Your task to perform on an android device: turn on translation in the chrome app Image 0: 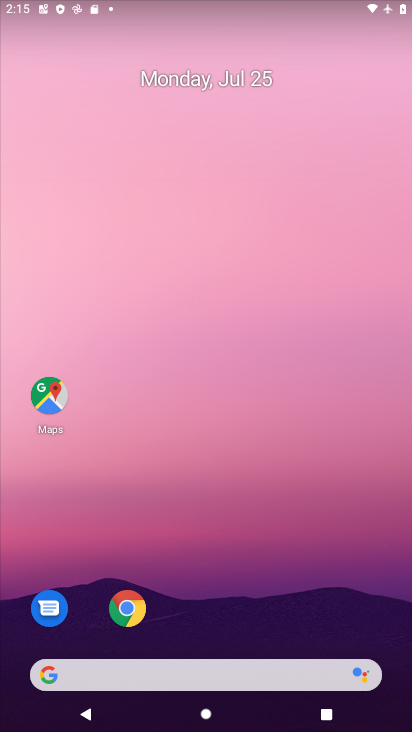
Step 0: drag from (248, 638) to (262, 145)
Your task to perform on an android device: turn on translation in the chrome app Image 1: 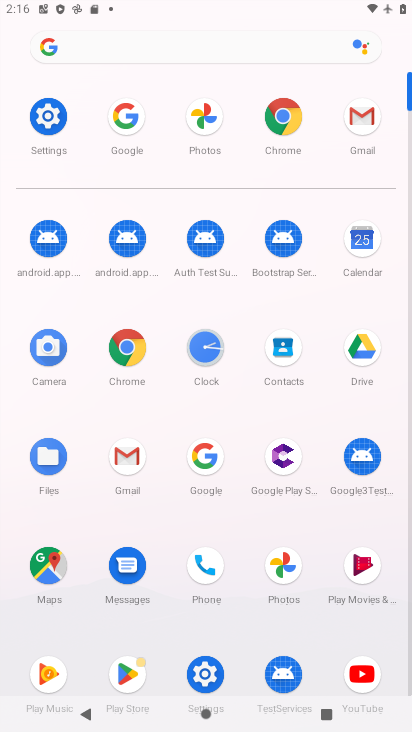
Step 1: click (288, 132)
Your task to perform on an android device: turn on translation in the chrome app Image 2: 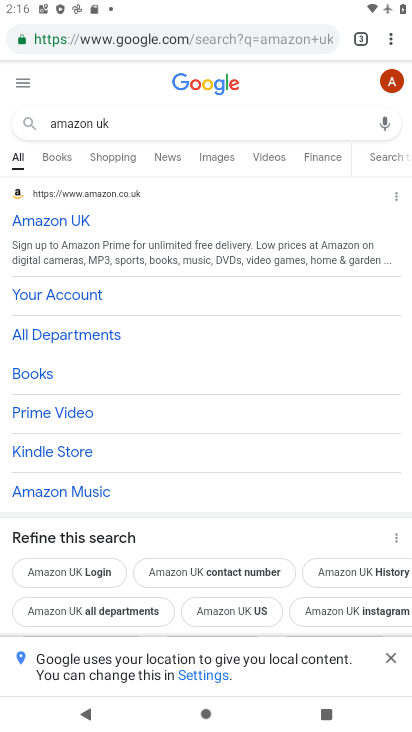
Step 2: click (393, 41)
Your task to perform on an android device: turn on translation in the chrome app Image 3: 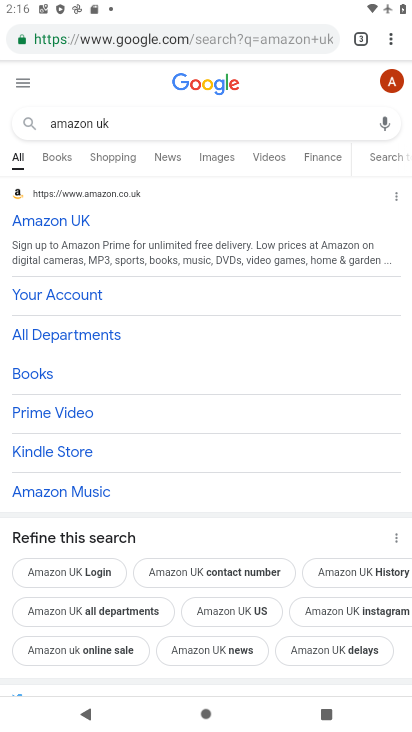
Step 3: click (391, 42)
Your task to perform on an android device: turn on translation in the chrome app Image 4: 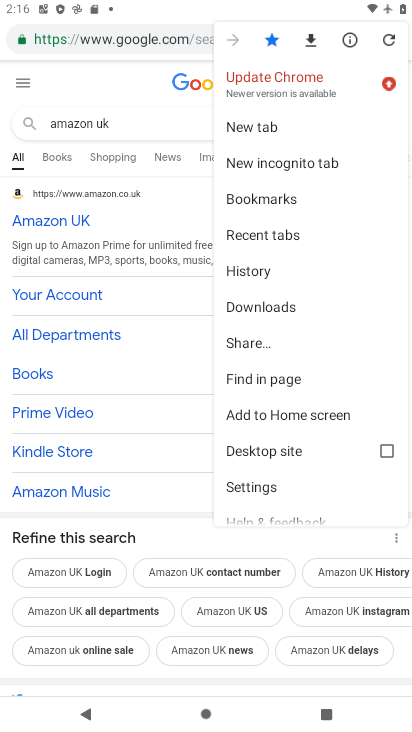
Step 4: task complete